Your task to perform on an android device: When is my next appointment? Image 0: 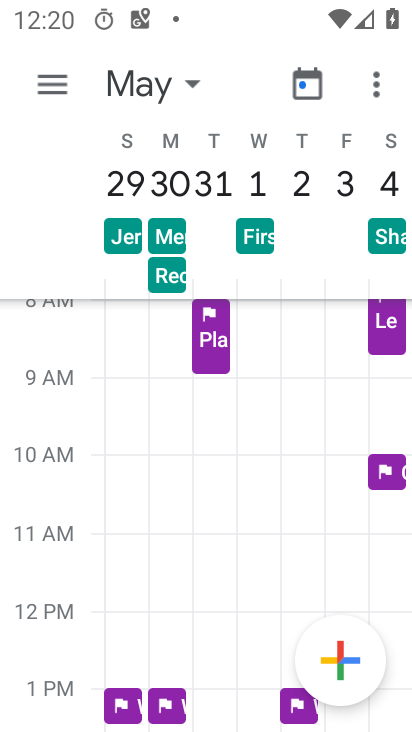
Step 0: press home button
Your task to perform on an android device: When is my next appointment? Image 1: 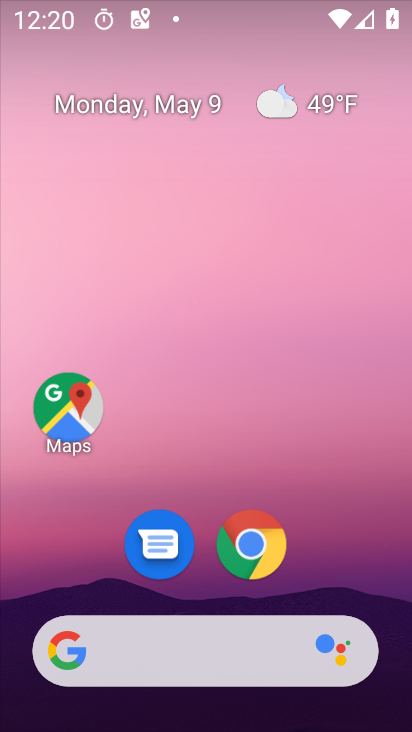
Step 1: drag from (298, 644) to (325, 93)
Your task to perform on an android device: When is my next appointment? Image 2: 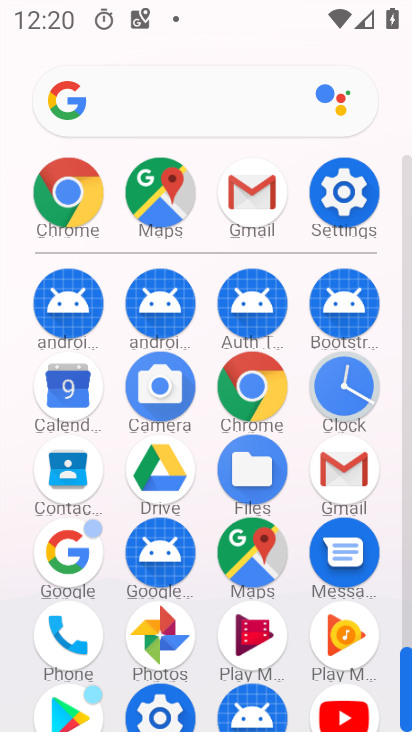
Step 2: click (78, 395)
Your task to perform on an android device: When is my next appointment? Image 3: 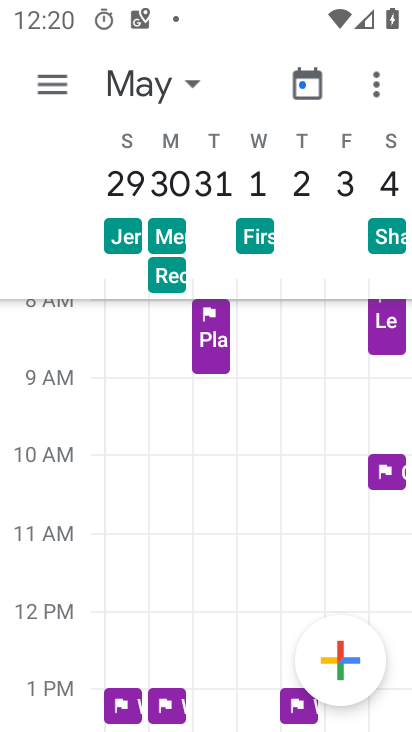
Step 3: click (194, 81)
Your task to perform on an android device: When is my next appointment? Image 4: 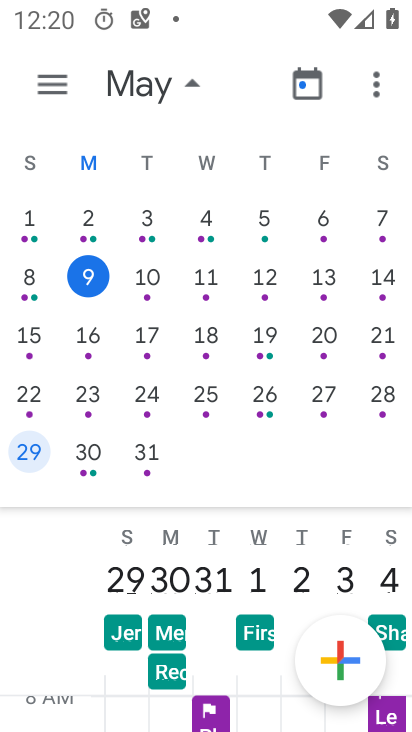
Step 4: click (135, 284)
Your task to perform on an android device: When is my next appointment? Image 5: 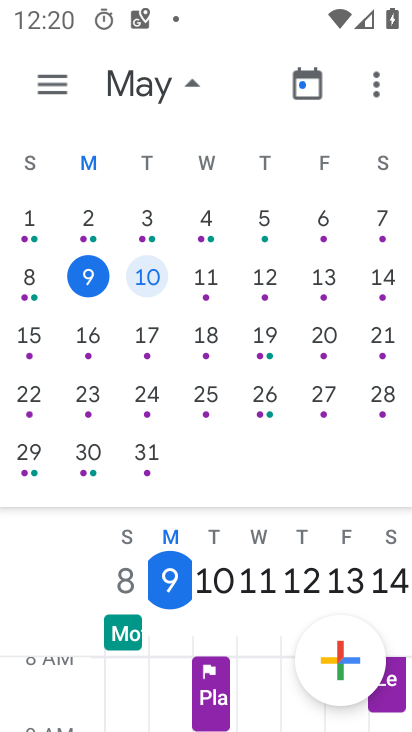
Step 5: click (67, 280)
Your task to perform on an android device: When is my next appointment? Image 6: 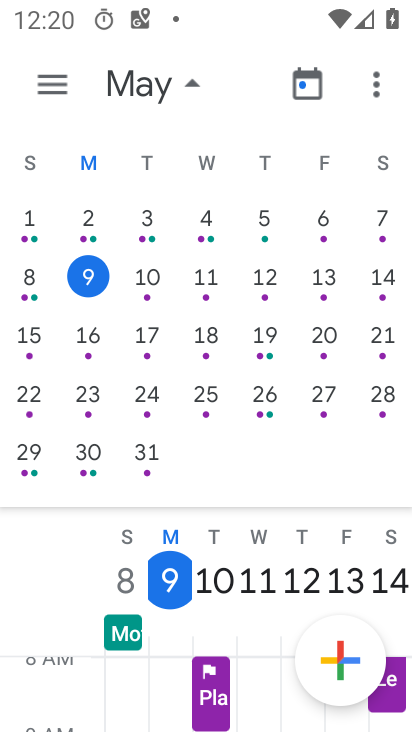
Step 6: task complete